Your task to perform on an android device: Is it going to rain tomorrow? Image 0: 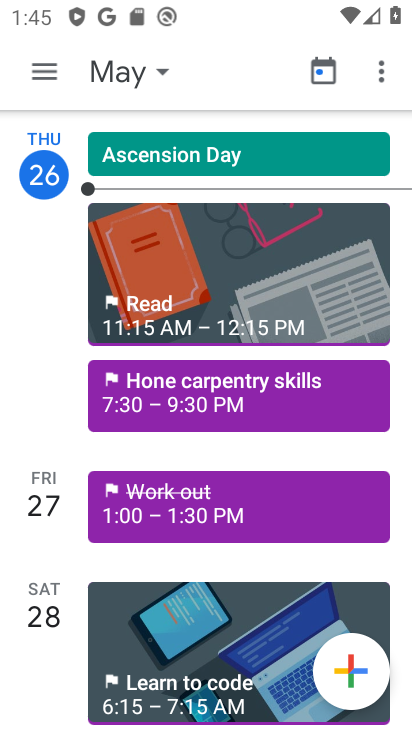
Step 0: press home button
Your task to perform on an android device: Is it going to rain tomorrow? Image 1: 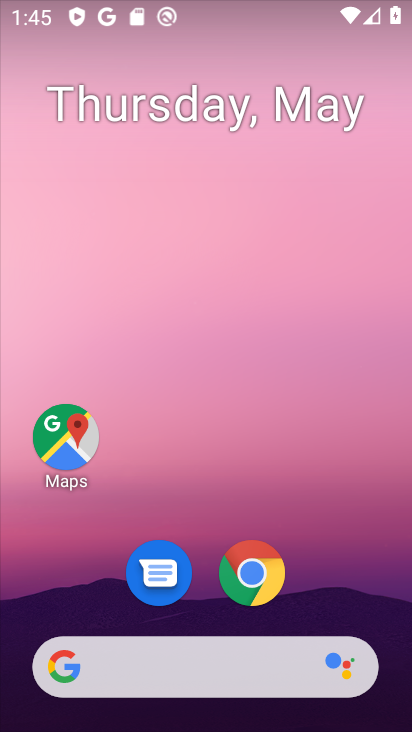
Step 1: click (241, 568)
Your task to perform on an android device: Is it going to rain tomorrow? Image 2: 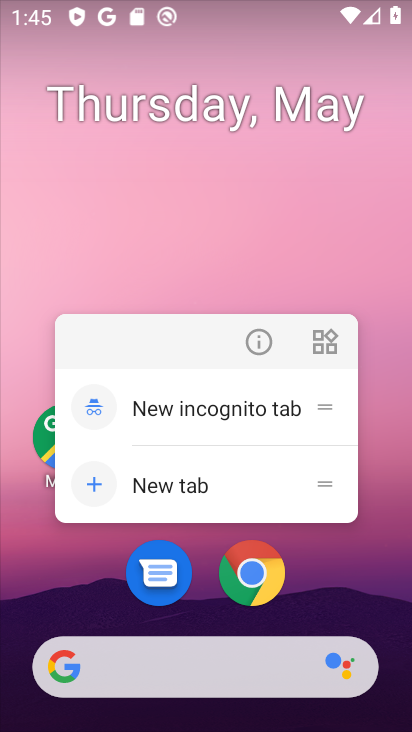
Step 2: click (268, 559)
Your task to perform on an android device: Is it going to rain tomorrow? Image 3: 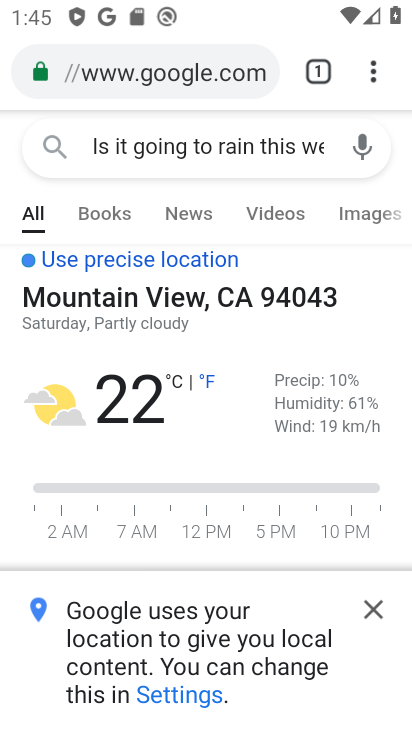
Step 3: click (366, 609)
Your task to perform on an android device: Is it going to rain tomorrow? Image 4: 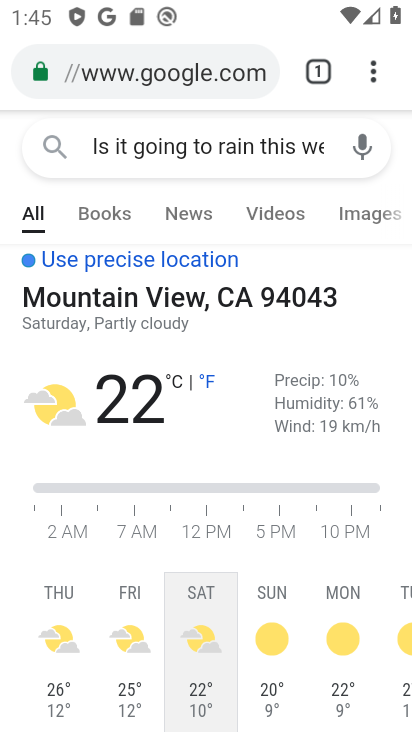
Step 4: click (284, 140)
Your task to perform on an android device: Is it going to rain tomorrow? Image 5: 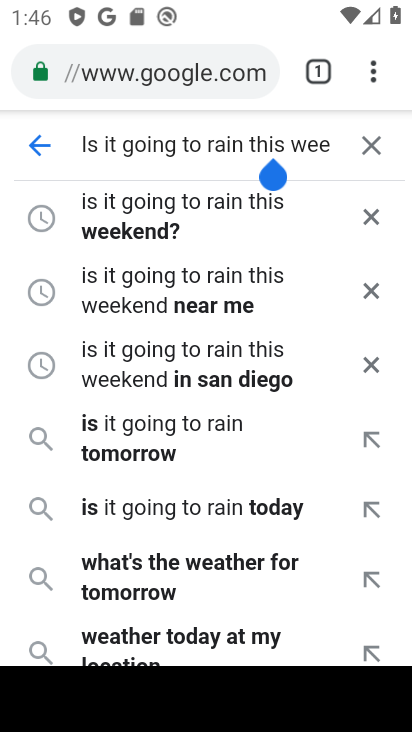
Step 5: click (191, 446)
Your task to perform on an android device: Is it going to rain tomorrow? Image 6: 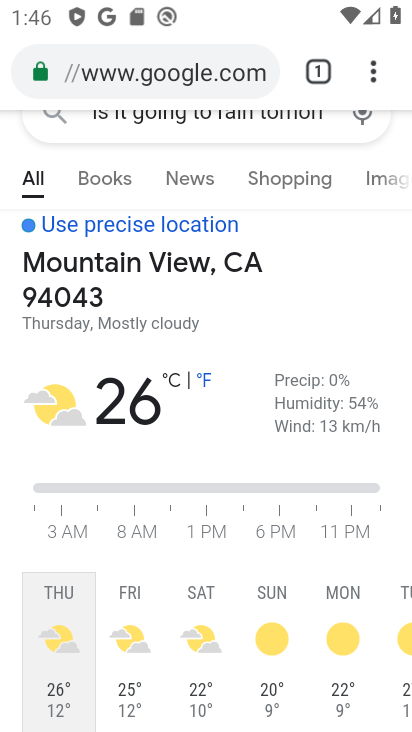
Step 6: task complete